Your task to perform on an android device: Go to Google maps Image 0: 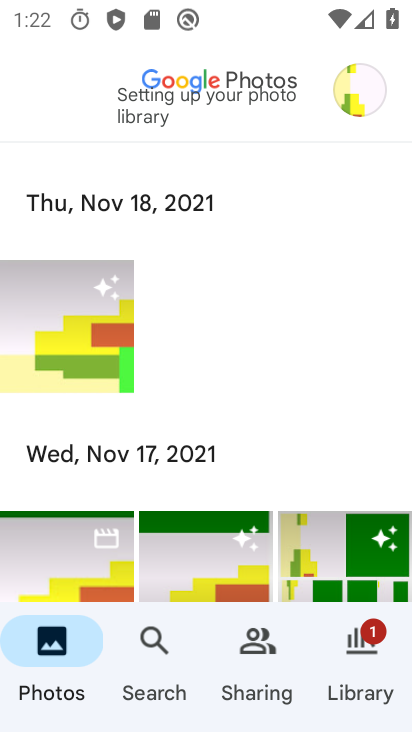
Step 0: press home button
Your task to perform on an android device: Go to Google maps Image 1: 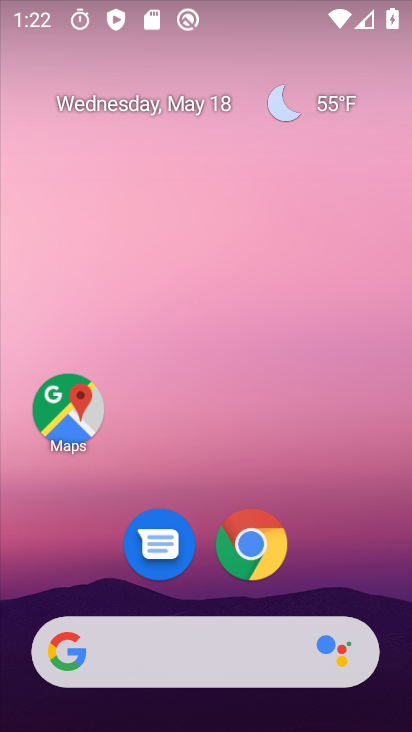
Step 1: click (58, 414)
Your task to perform on an android device: Go to Google maps Image 2: 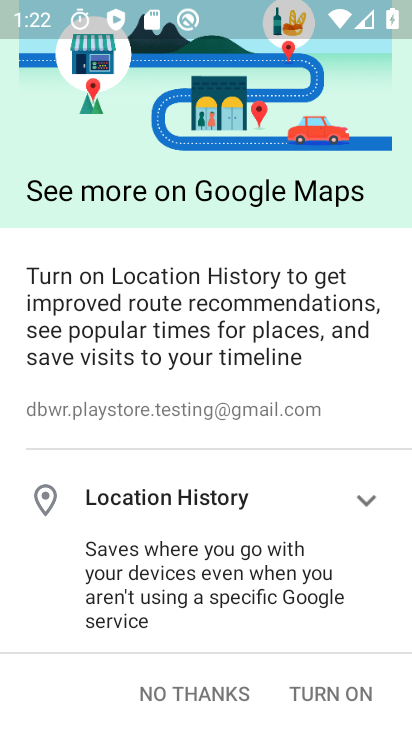
Step 2: click (340, 689)
Your task to perform on an android device: Go to Google maps Image 3: 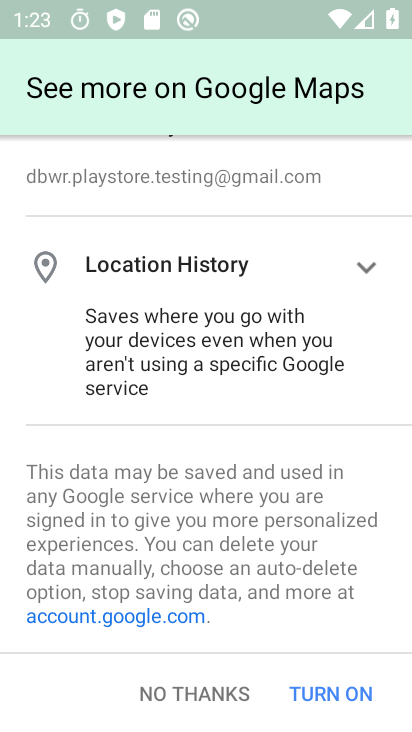
Step 3: click (340, 689)
Your task to perform on an android device: Go to Google maps Image 4: 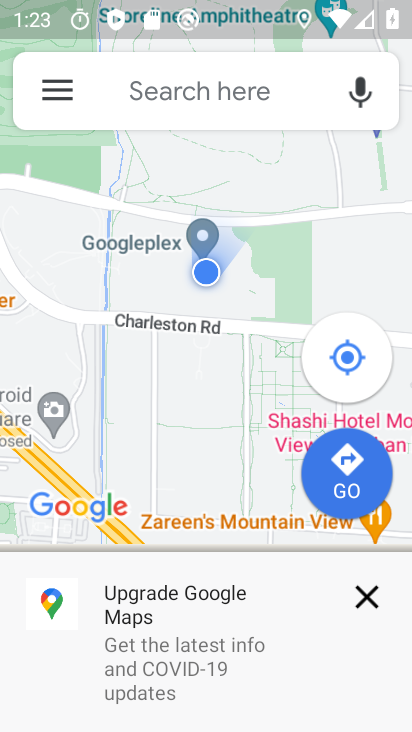
Step 4: task complete